Your task to perform on an android device: How much does a 3 bedroom apartment rent for in Atlanta? Image 0: 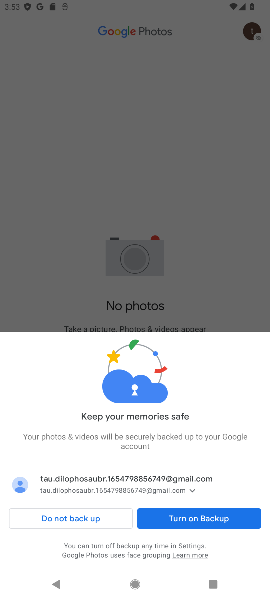
Step 0: press home button
Your task to perform on an android device: How much does a 3 bedroom apartment rent for in Atlanta? Image 1: 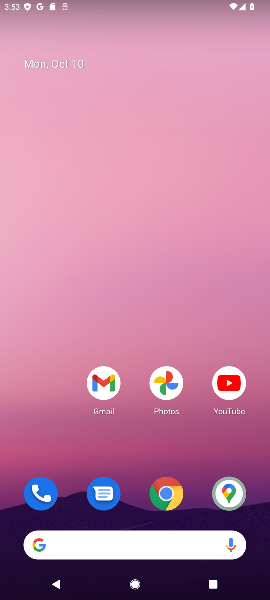
Step 1: click (142, 546)
Your task to perform on an android device: How much does a 3 bedroom apartment rent for in Atlanta? Image 2: 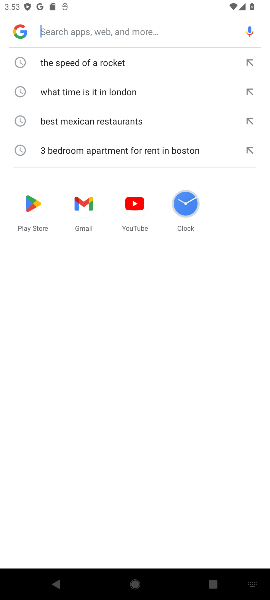
Step 2: type " 3 bedroom apartment rent for in Atlanta"
Your task to perform on an android device: How much does a 3 bedroom apartment rent for in Atlanta? Image 3: 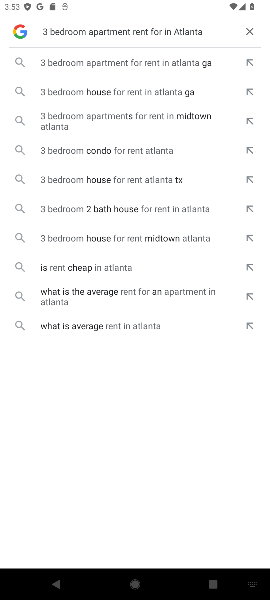
Step 3: click (74, 58)
Your task to perform on an android device: How much does a 3 bedroom apartment rent for in Atlanta? Image 4: 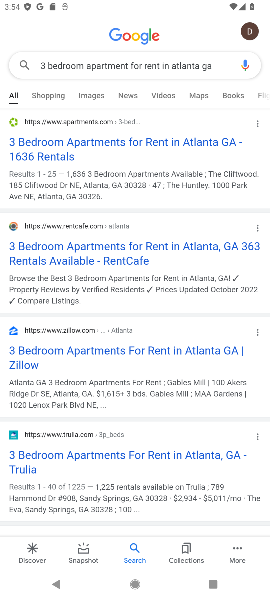
Step 4: click (77, 140)
Your task to perform on an android device: How much does a 3 bedroom apartment rent for in Atlanta? Image 5: 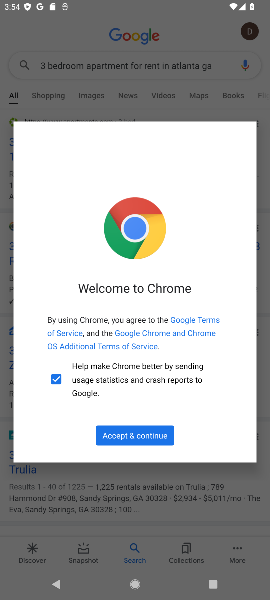
Step 5: task complete